Your task to perform on an android device: Open calendar and show me the third week of next month Image 0: 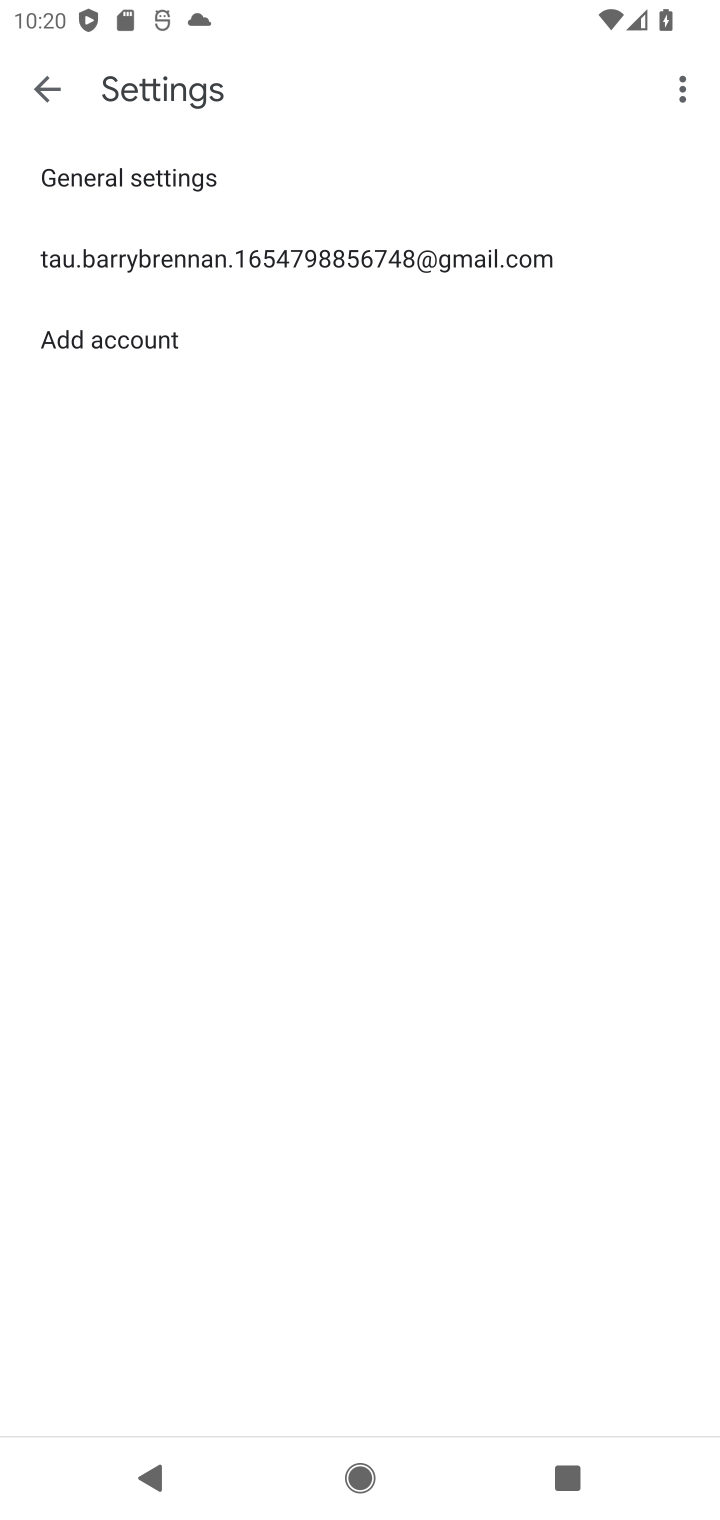
Step 0: press home button
Your task to perform on an android device: Open calendar and show me the third week of next month Image 1: 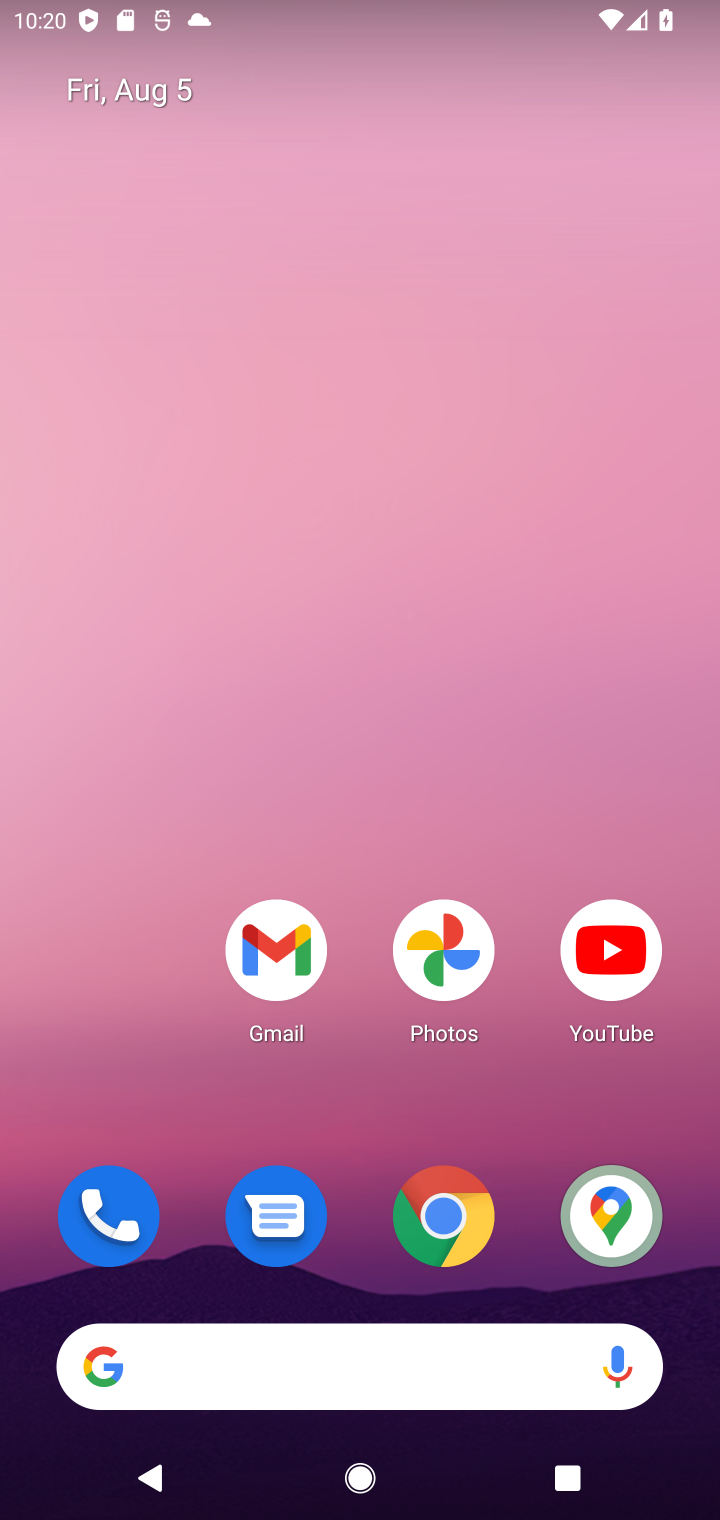
Step 1: click (590, 1077)
Your task to perform on an android device: Open calendar and show me the third week of next month Image 2: 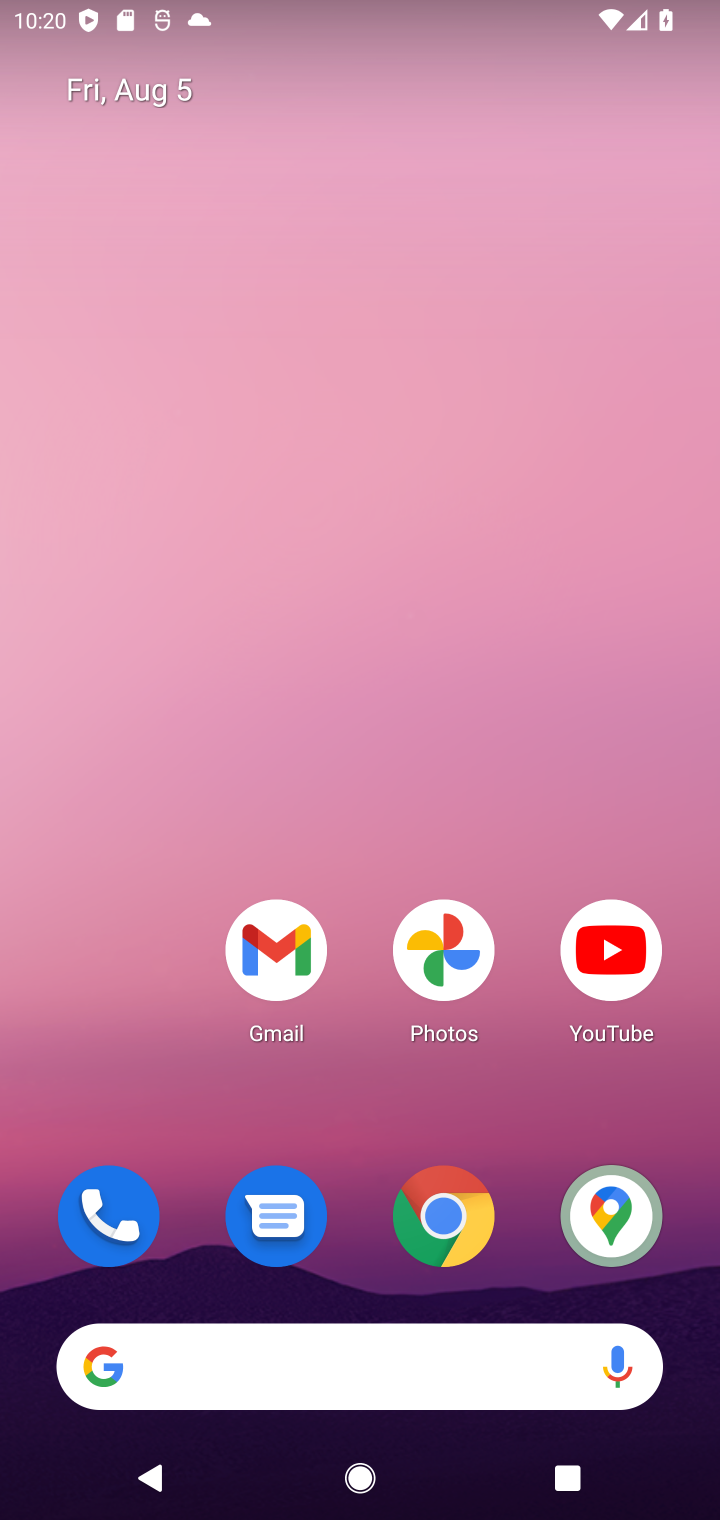
Step 2: drag from (238, 1377) to (533, 39)
Your task to perform on an android device: Open calendar and show me the third week of next month Image 3: 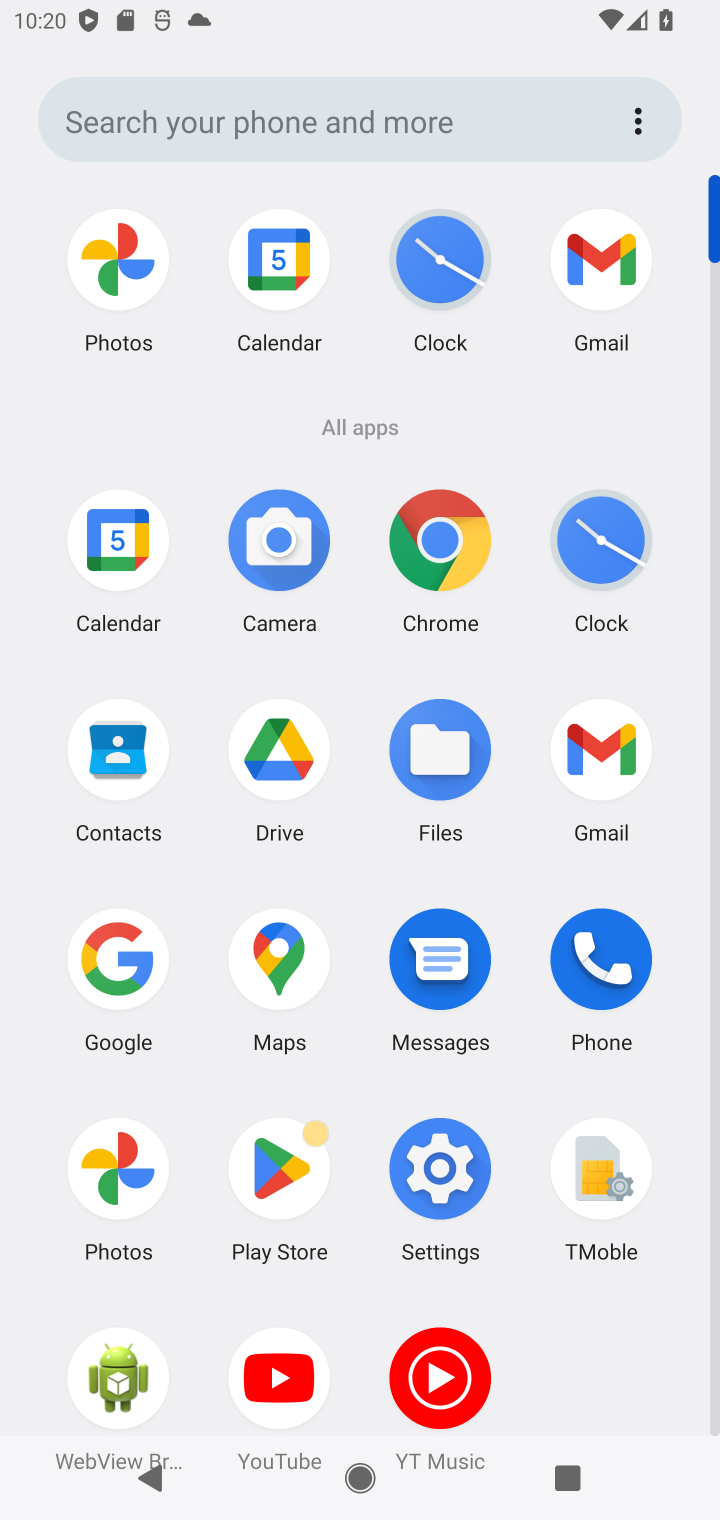
Step 3: click (139, 549)
Your task to perform on an android device: Open calendar and show me the third week of next month Image 4: 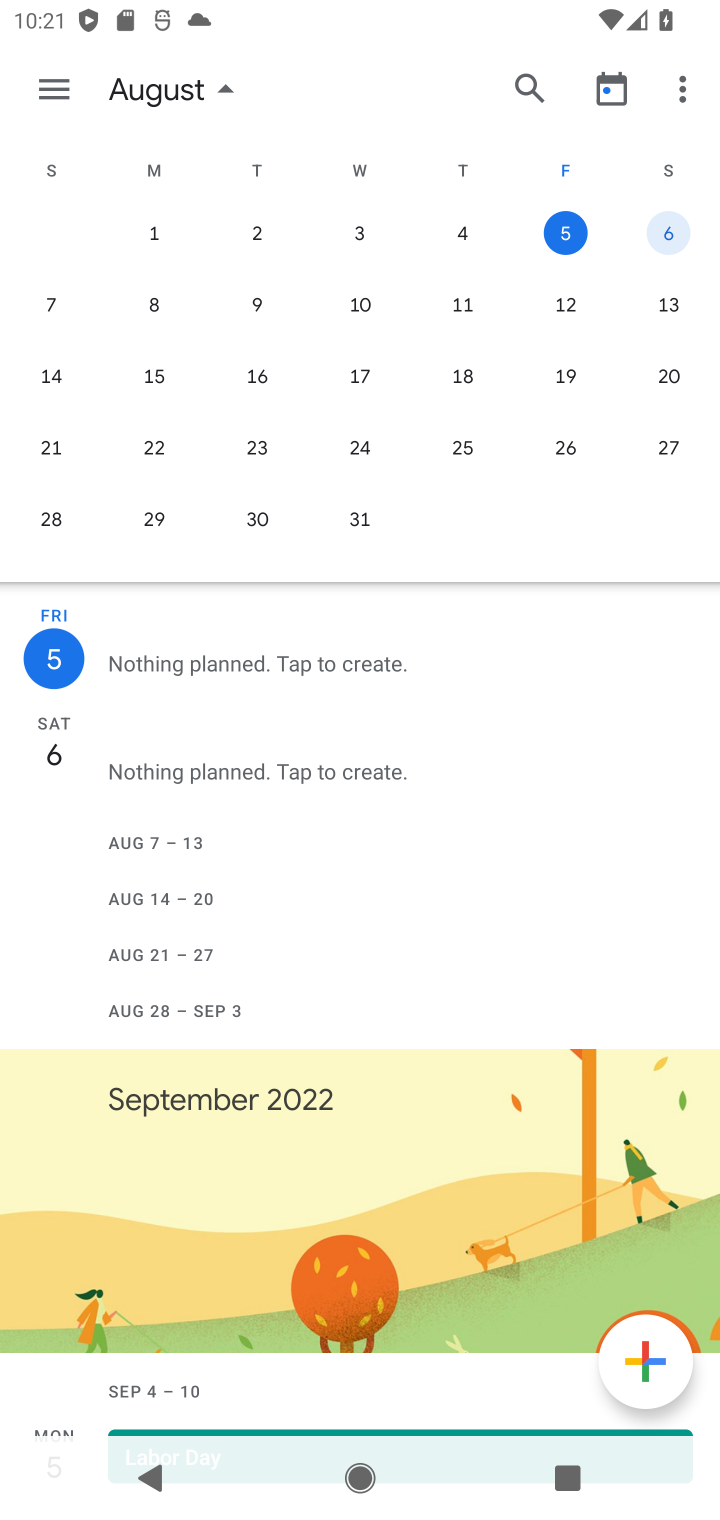
Step 4: click (364, 368)
Your task to perform on an android device: Open calendar and show me the third week of next month Image 5: 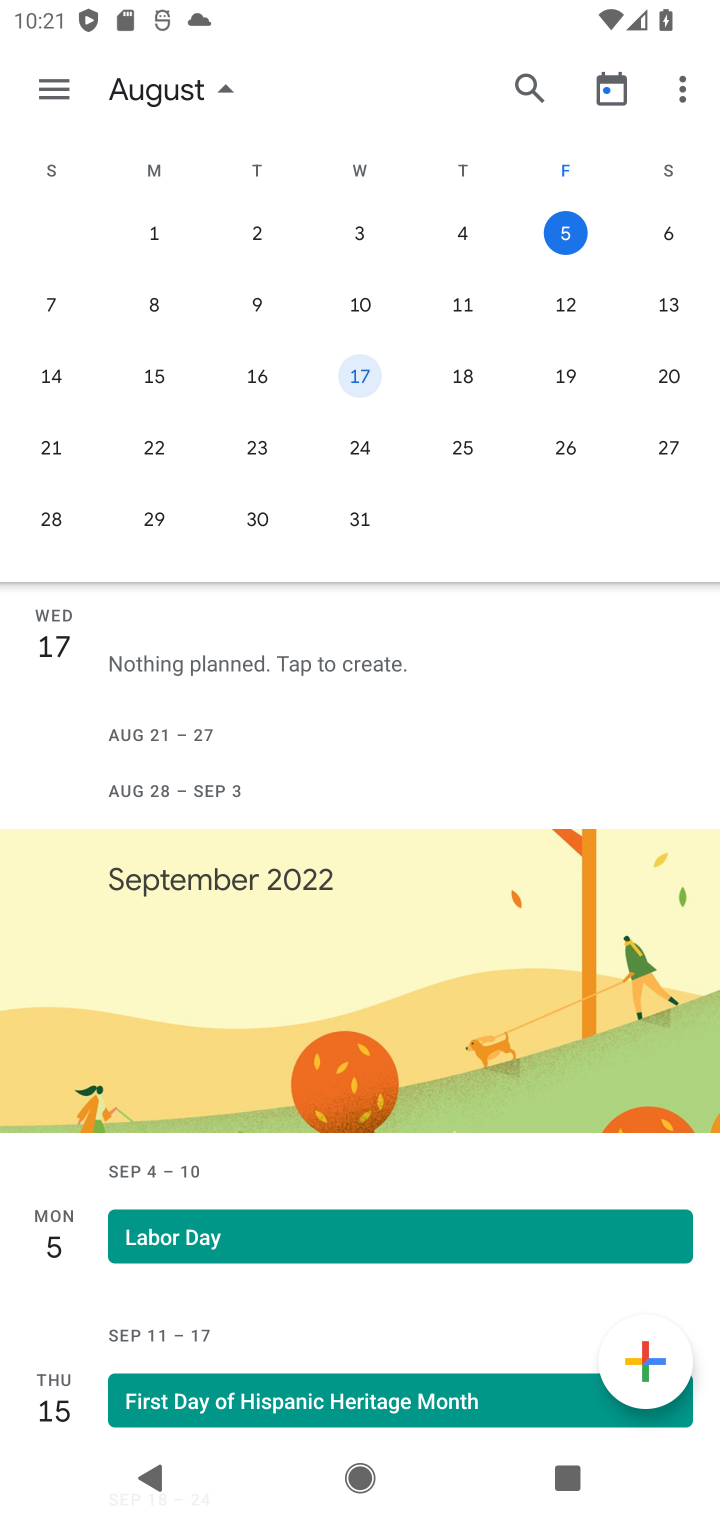
Step 5: click (62, 72)
Your task to perform on an android device: Open calendar and show me the third week of next month Image 6: 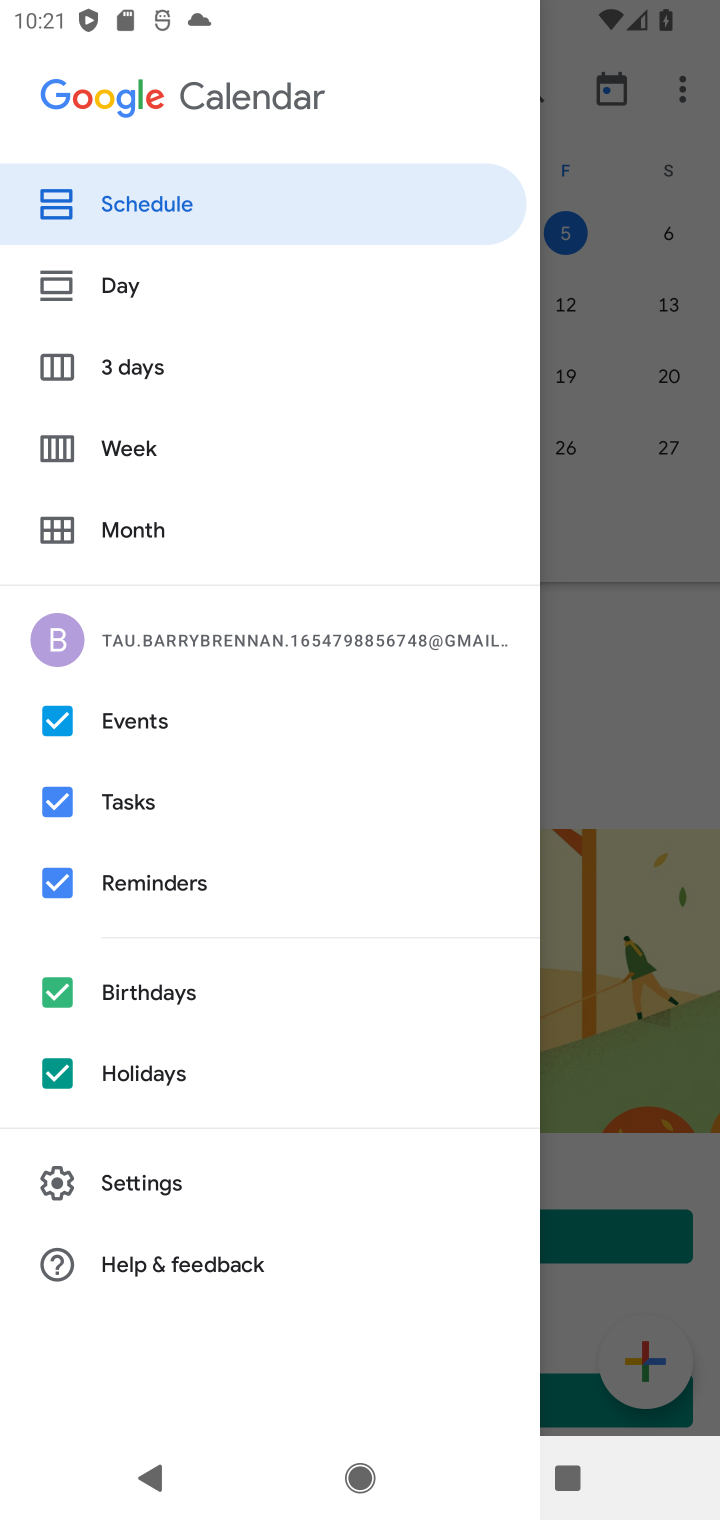
Step 6: click (126, 439)
Your task to perform on an android device: Open calendar and show me the third week of next month Image 7: 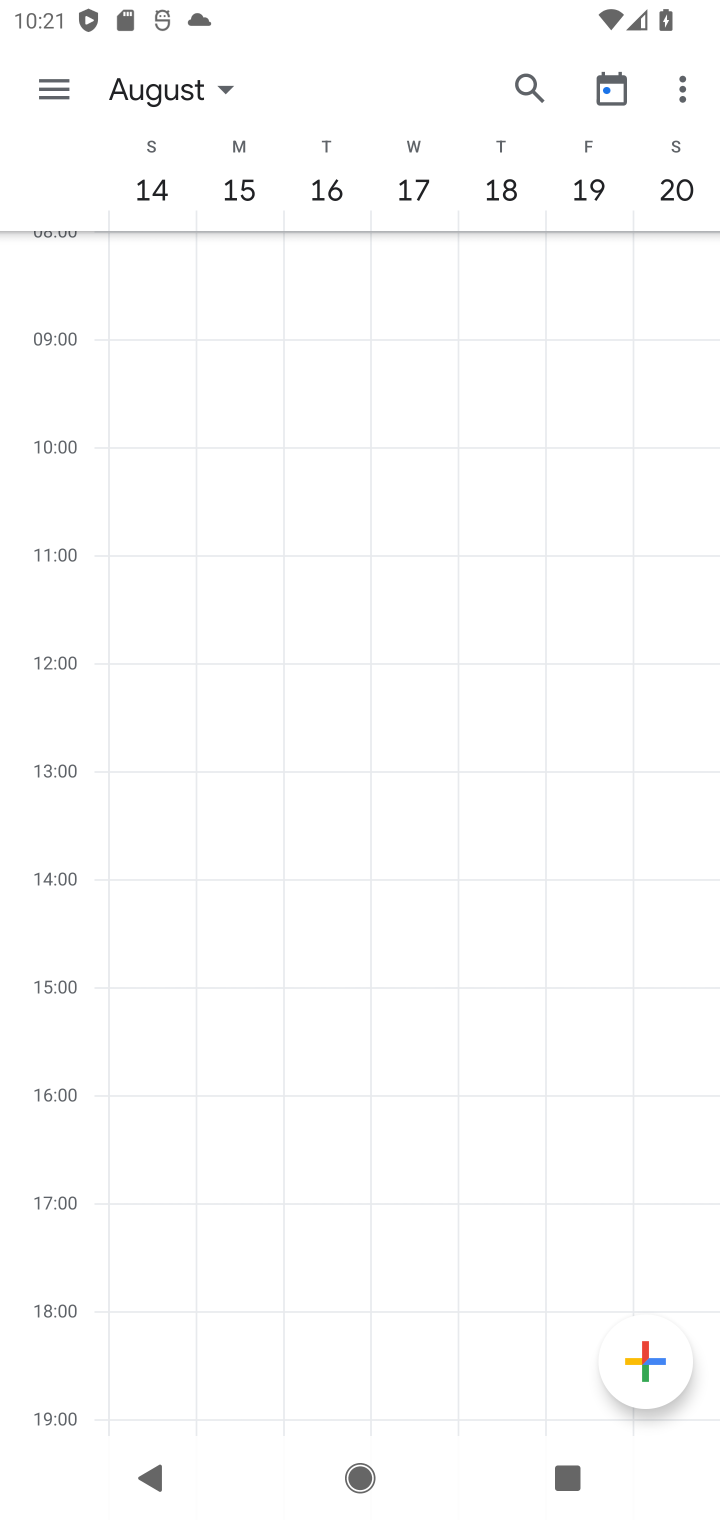
Step 7: task complete